Your task to perform on an android device: find snoozed emails in the gmail app Image 0: 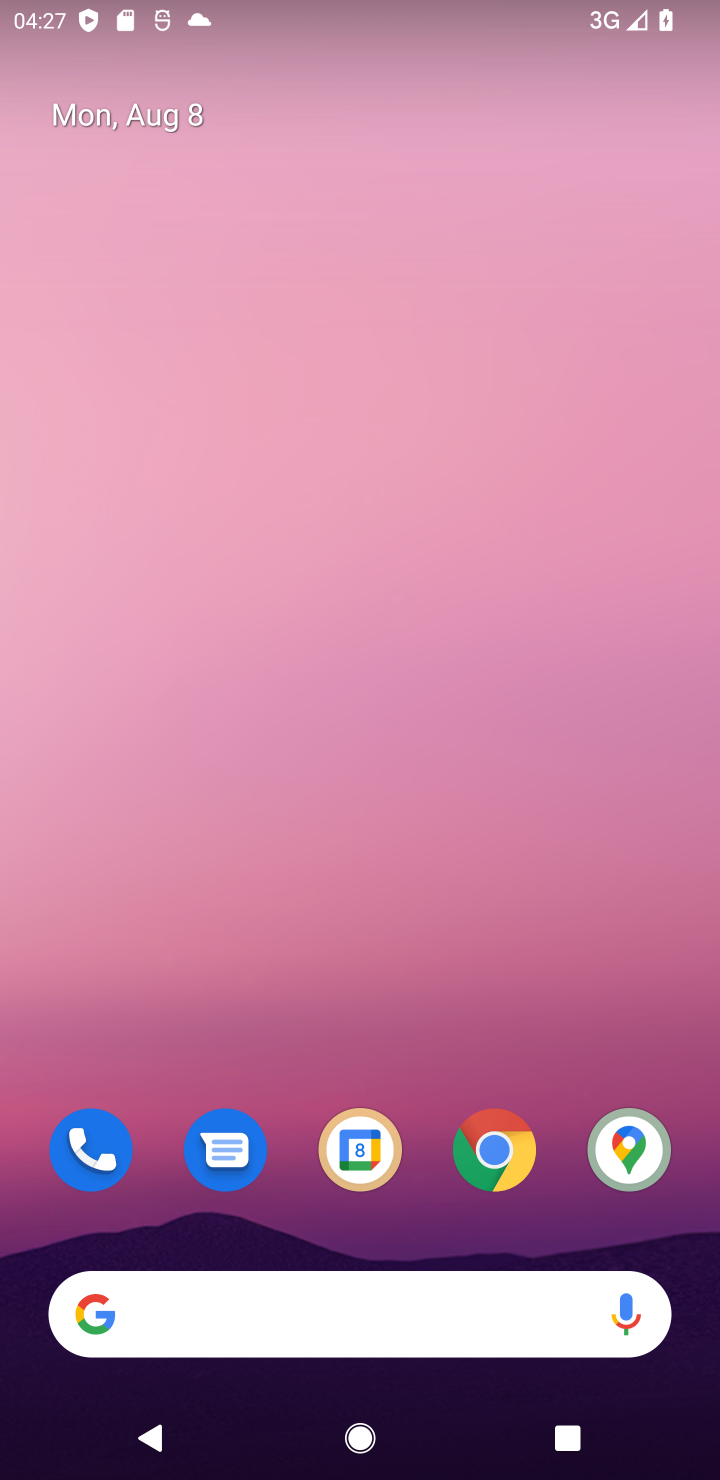
Step 0: drag from (249, 993) to (272, 908)
Your task to perform on an android device: find snoozed emails in the gmail app Image 1: 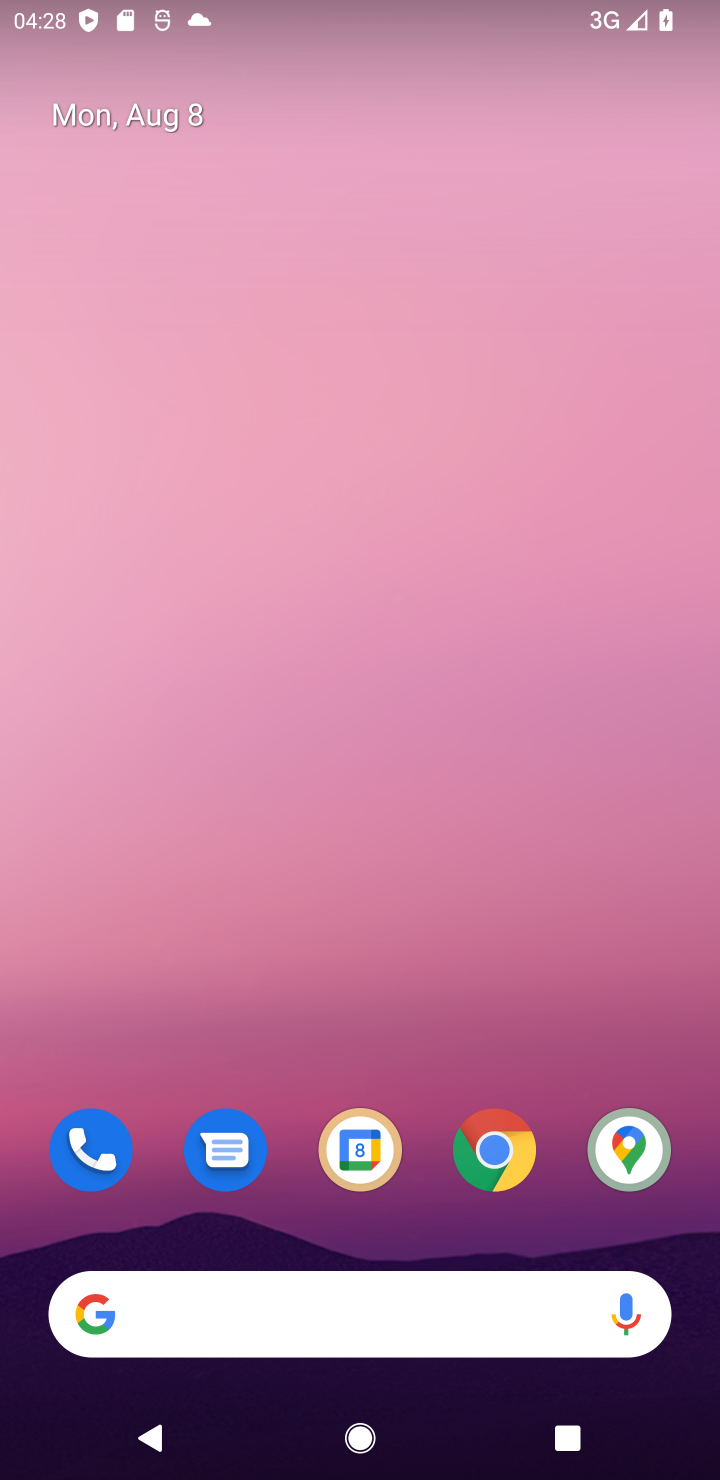
Step 1: drag from (36, 1332) to (486, 143)
Your task to perform on an android device: find snoozed emails in the gmail app Image 2: 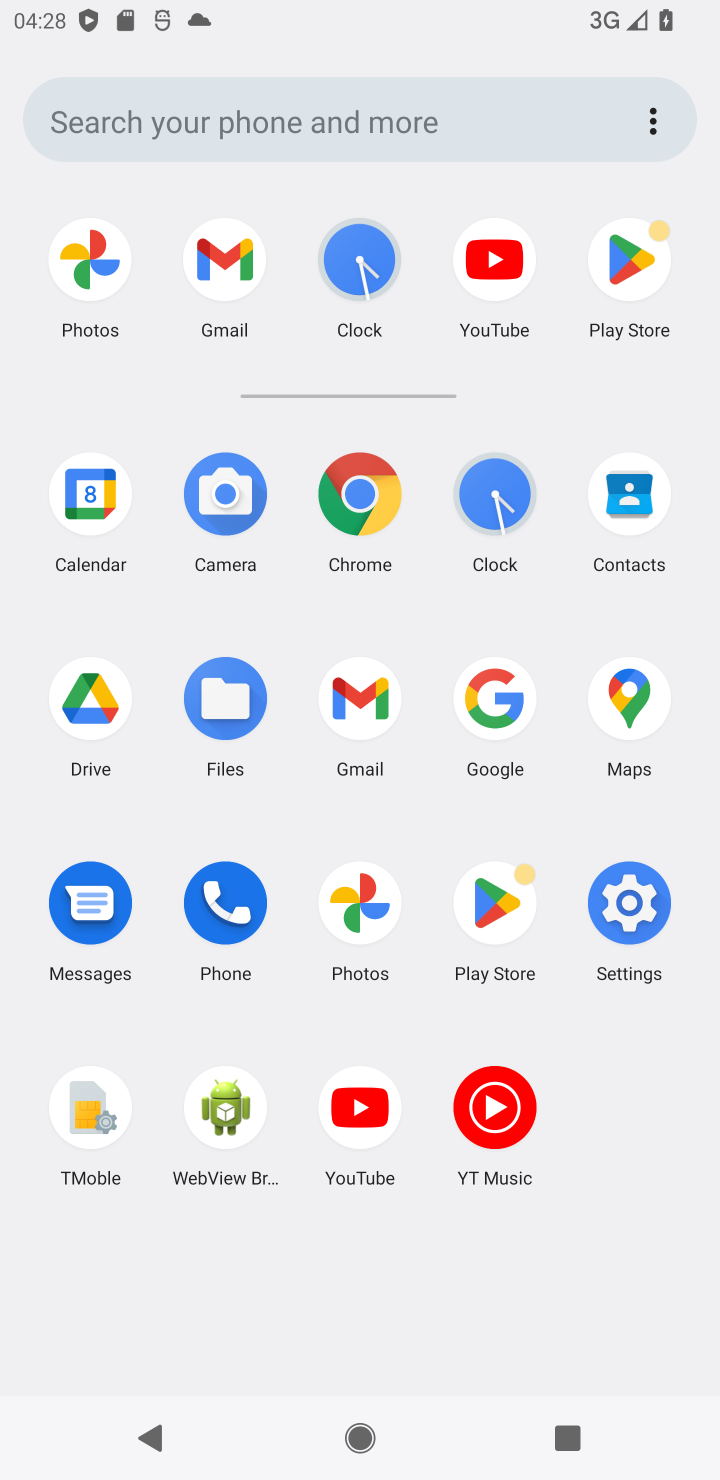
Step 2: click (372, 727)
Your task to perform on an android device: find snoozed emails in the gmail app Image 3: 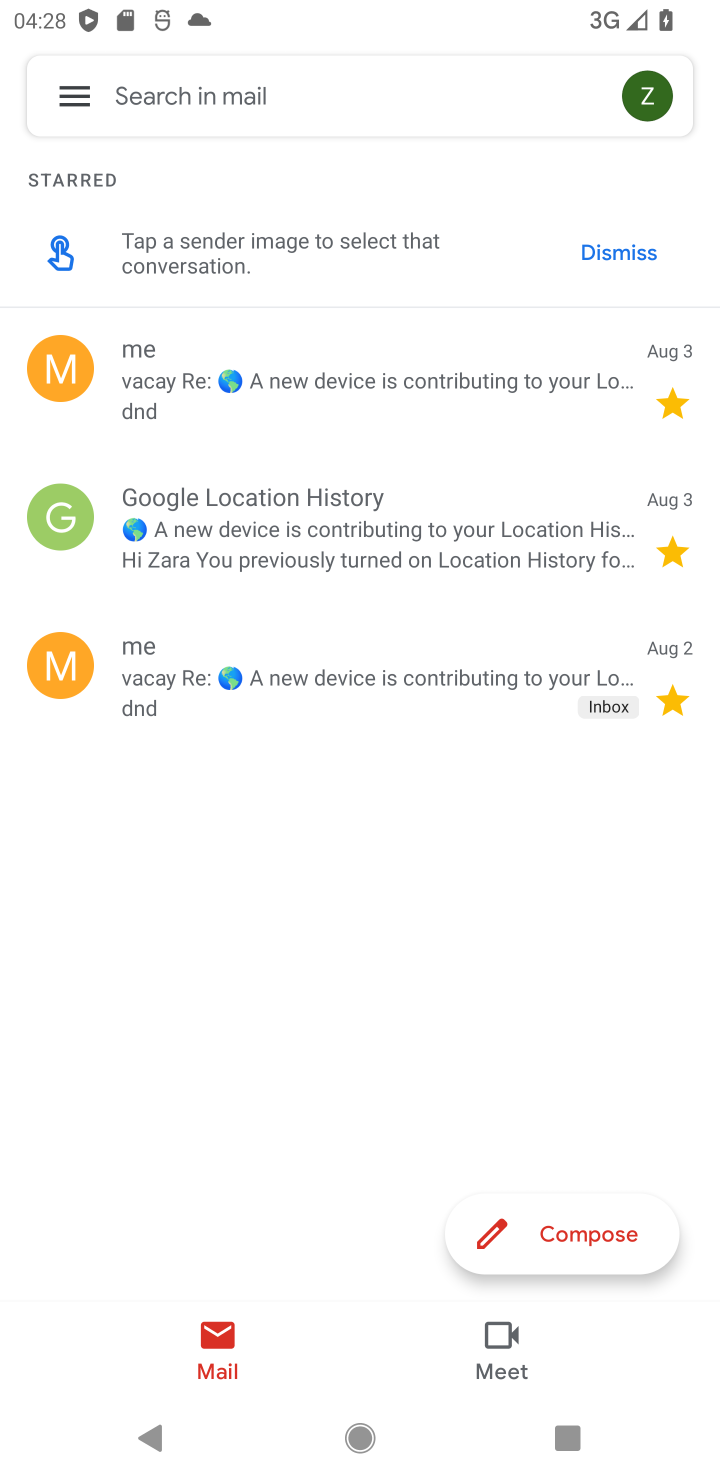
Step 3: click (77, 115)
Your task to perform on an android device: find snoozed emails in the gmail app Image 4: 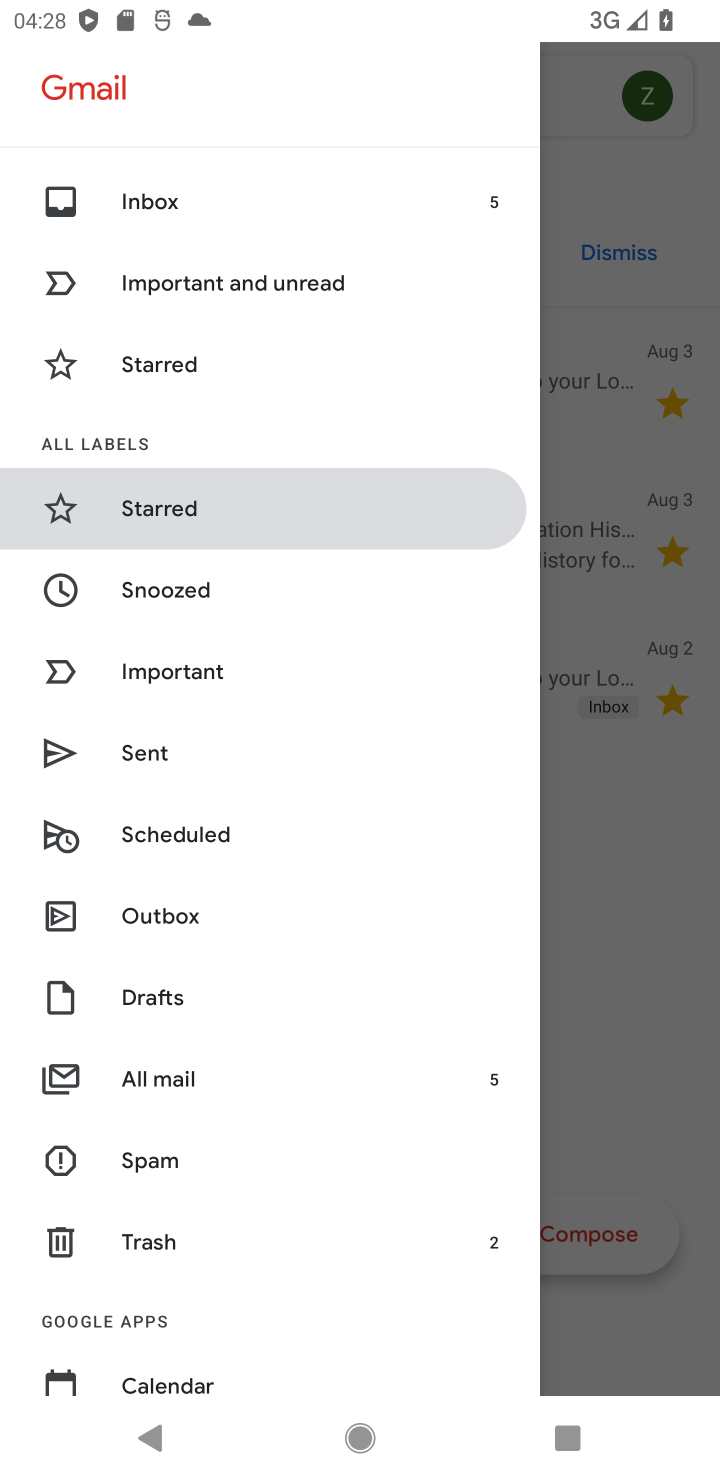
Step 4: click (221, 604)
Your task to perform on an android device: find snoozed emails in the gmail app Image 5: 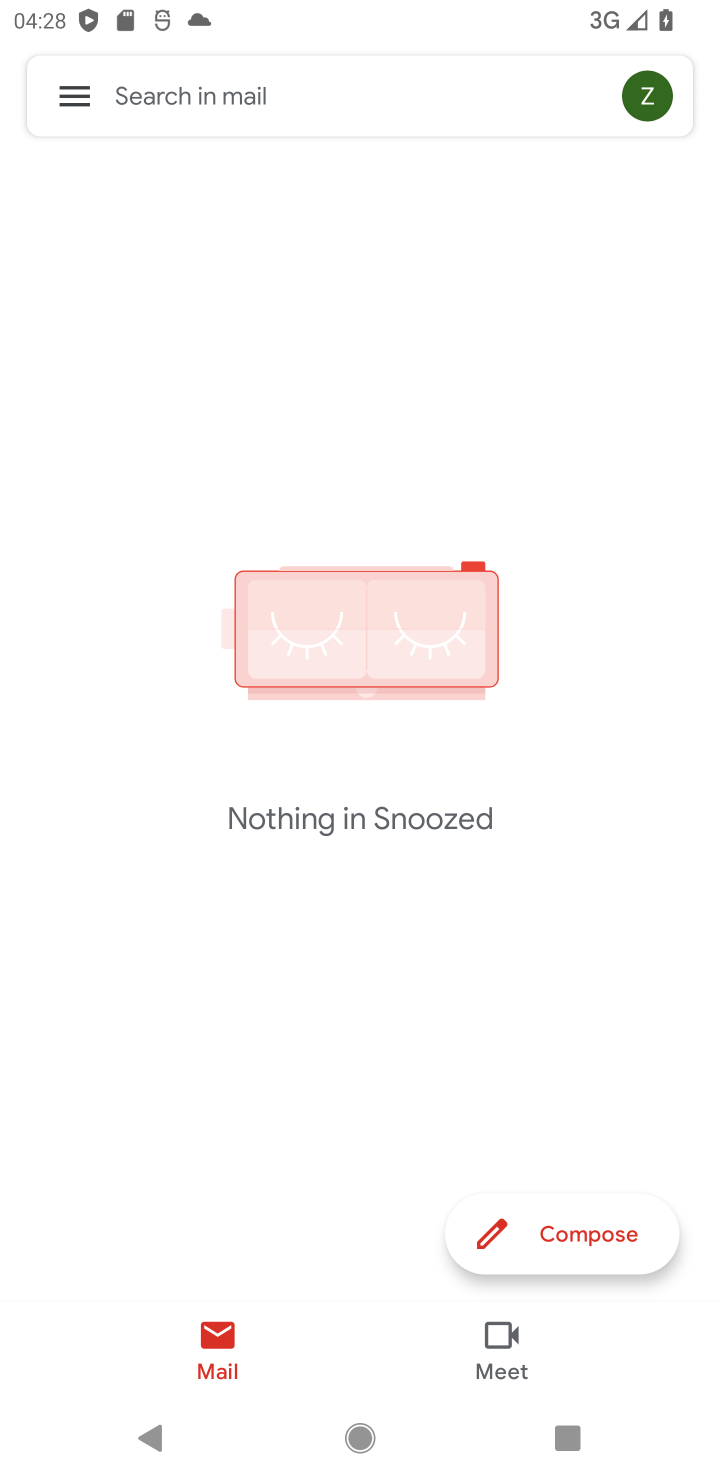
Step 5: task complete